Your task to perform on an android device: Open my contact list Image 0: 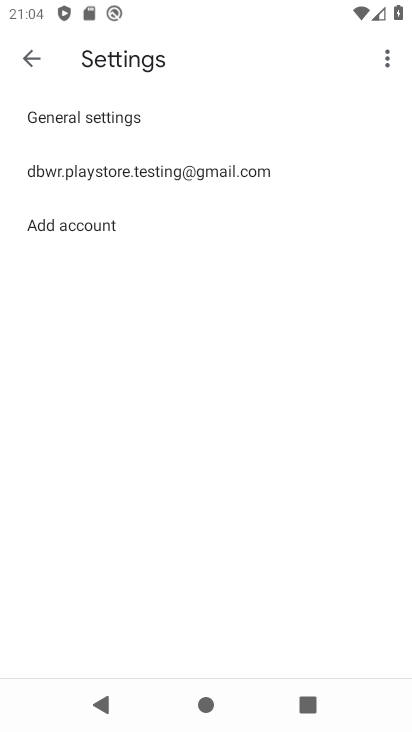
Step 0: press home button
Your task to perform on an android device: Open my contact list Image 1: 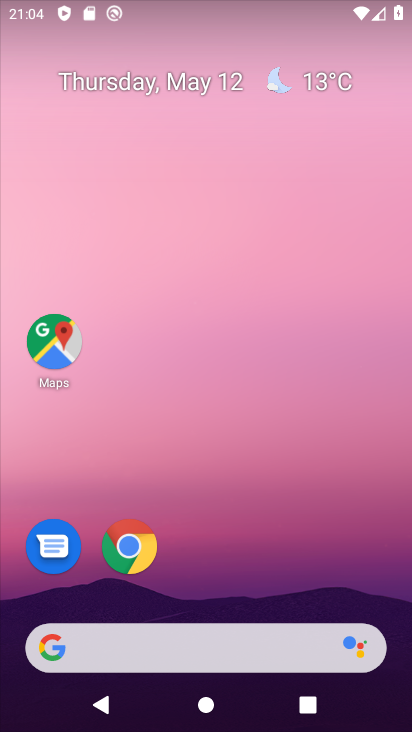
Step 1: drag from (206, 541) to (272, 116)
Your task to perform on an android device: Open my contact list Image 2: 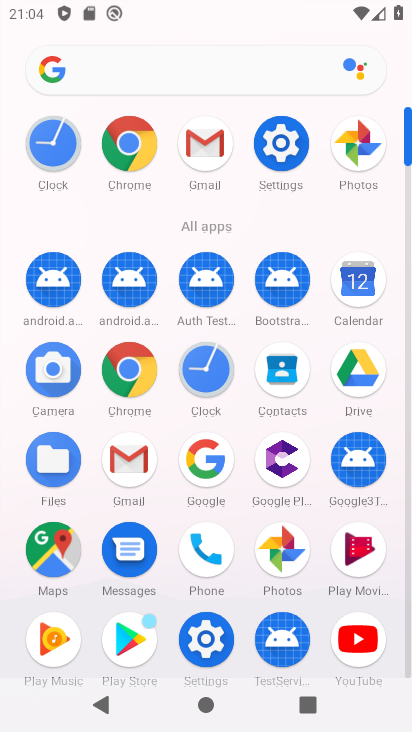
Step 2: drag from (258, 222) to (253, 2)
Your task to perform on an android device: Open my contact list Image 3: 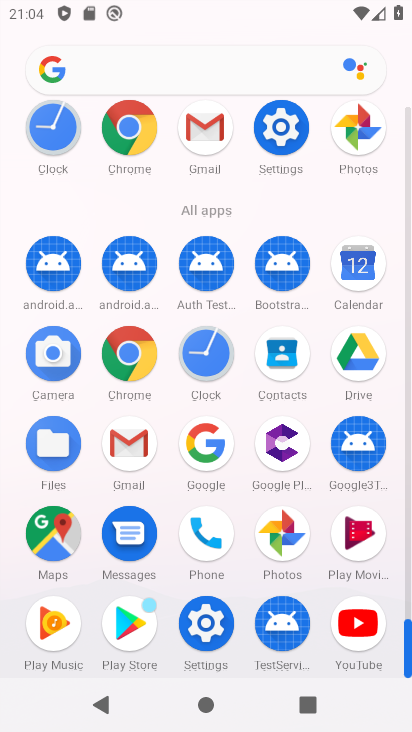
Step 3: drag from (236, 246) to (260, 14)
Your task to perform on an android device: Open my contact list Image 4: 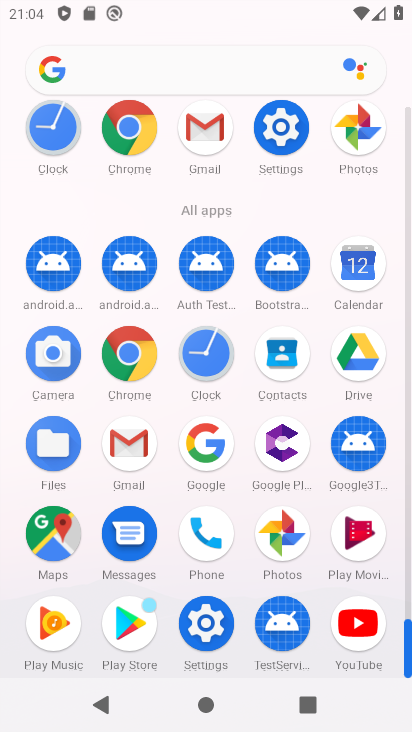
Step 4: click (271, 344)
Your task to perform on an android device: Open my contact list Image 5: 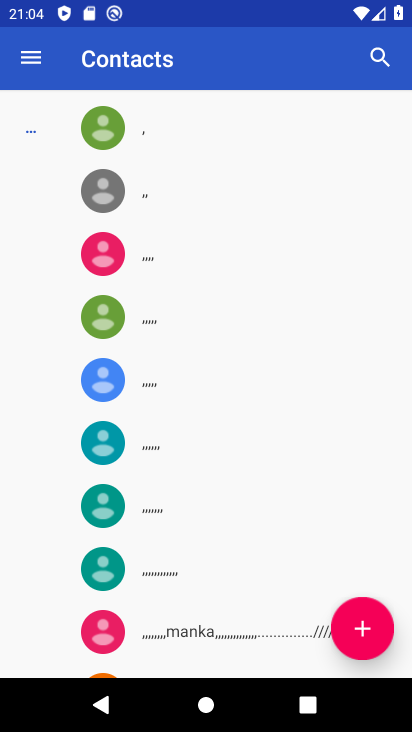
Step 5: task complete